Your task to perform on an android device: toggle show notifications on the lock screen Image 0: 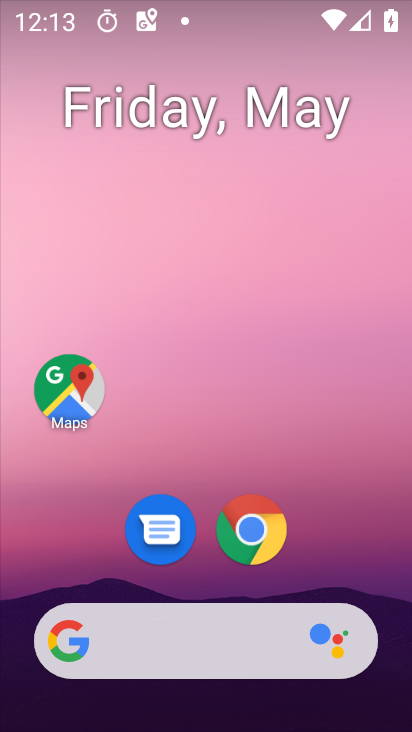
Step 0: drag from (302, 122) to (368, 7)
Your task to perform on an android device: toggle show notifications on the lock screen Image 1: 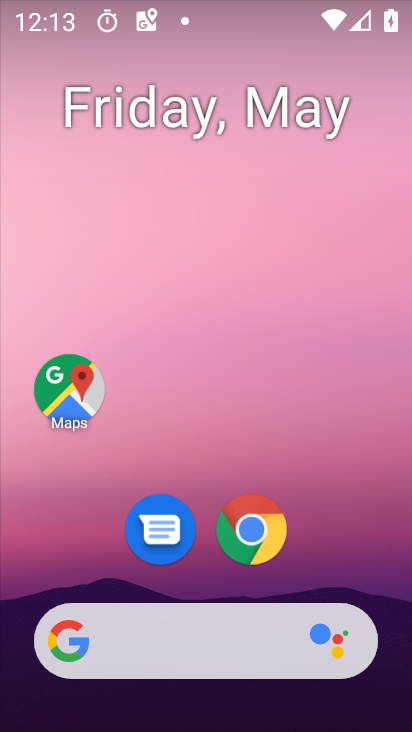
Step 1: drag from (204, 690) to (315, 0)
Your task to perform on an android device: toggle show notifications on the lock screen Image 2: 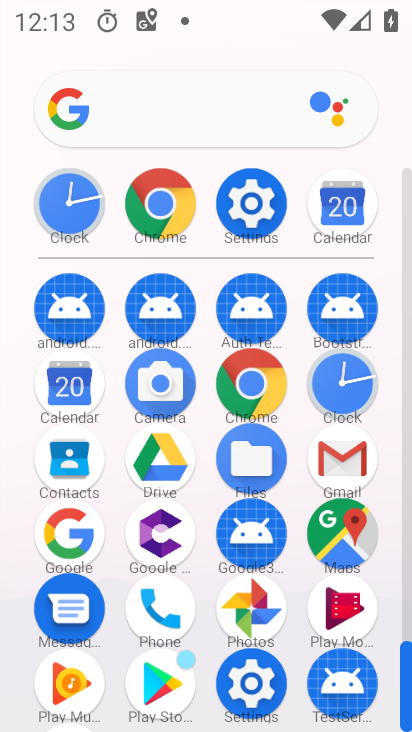
Step 2: click (246, 235)
Your task to perform on an android device: toggle show notifications on the lock screen Image 3: 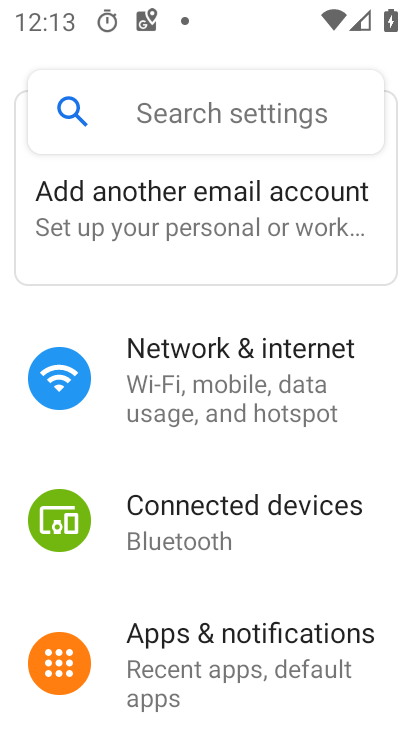
Step 3: click (226, 648)
Your task to perform on an android device: toggle show notifications on the lock screen Image 4: 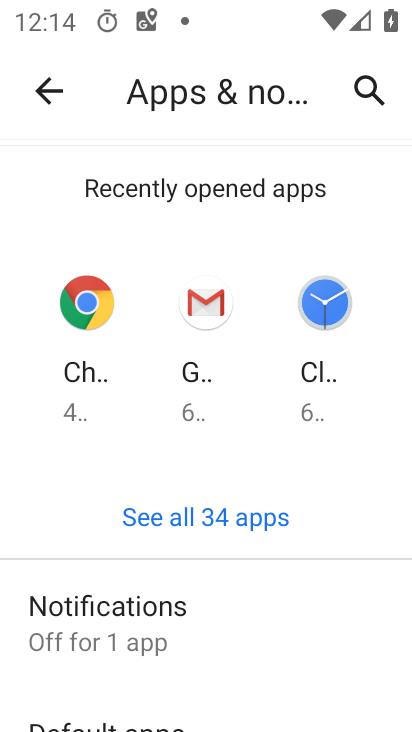
Step 4: click (206, 613)
Your task to perform on an android device: toggle show notifications on the lock screen Image 5: 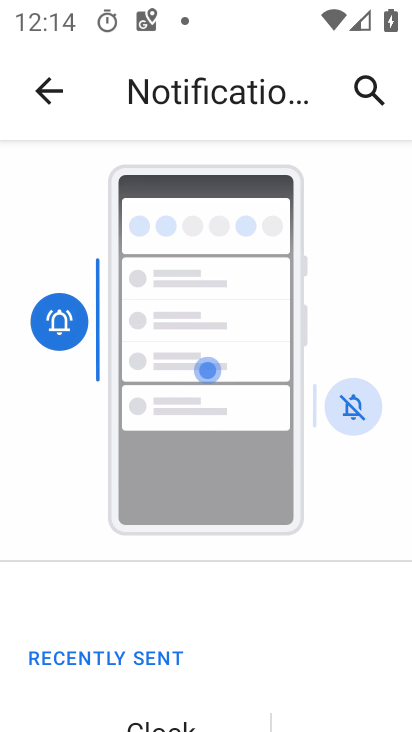
Step 5: drag from (199, 632) to (411, 232)
Your task to perform on an android device: toggle show notifications on the lock screen Image 6: 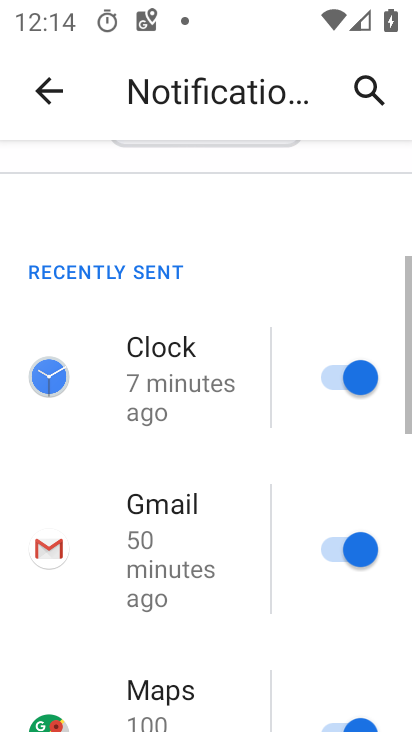
Step 6: drag from (188, 585) to (300, 81)
Your task to perform on an android device: toggle show notifications on the lock screen Image 7: 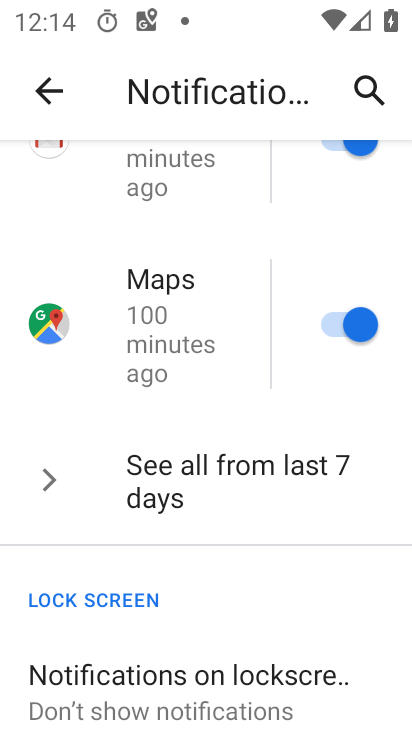
Step 7: click (168, 683)
Your task to perform on an android device: toggle show notifications on the lock screen Image 8: 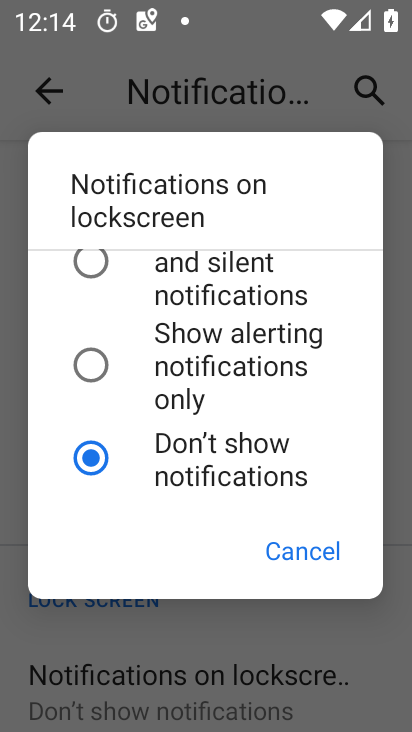
Step 8: click (99, 270)
Your task to perform on an android device: toggle show notifications on the lock screen Image 9: 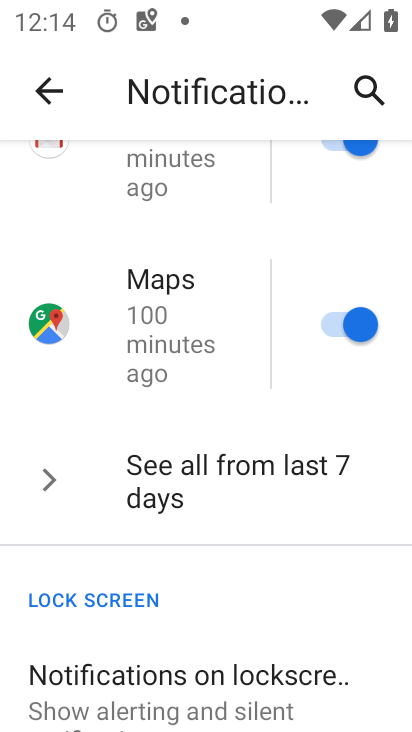
Step 9: task complete